Your task to perform on an android device: Play the last video I watched on Youtube Image 0: 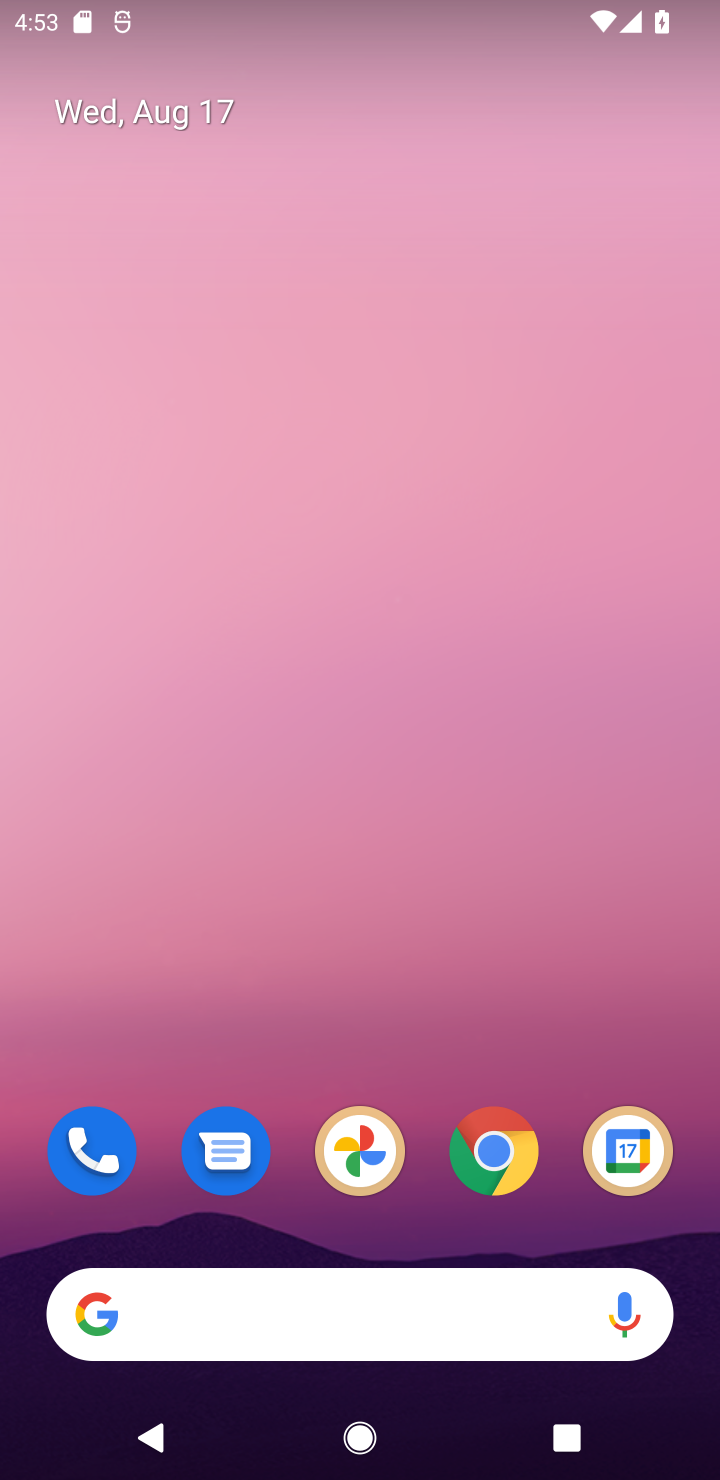
Step 0: drag from (415, 1237) to (369, 197)
Your task to perform on an android device: Play the last video I watched on Youtube Image 1: 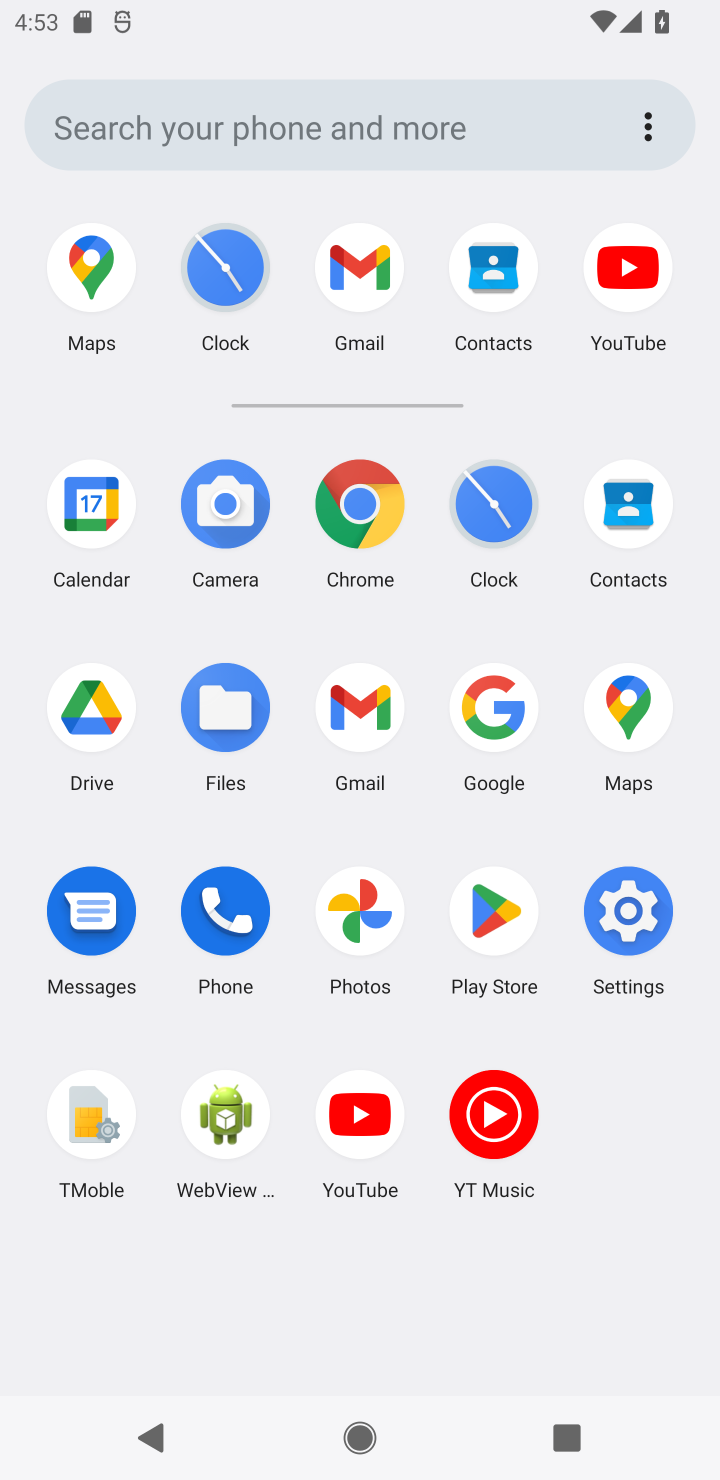
Step 1: click (656, 353)
Your task to perform on an android device: Play the last video I watched on Youtube Image 2: 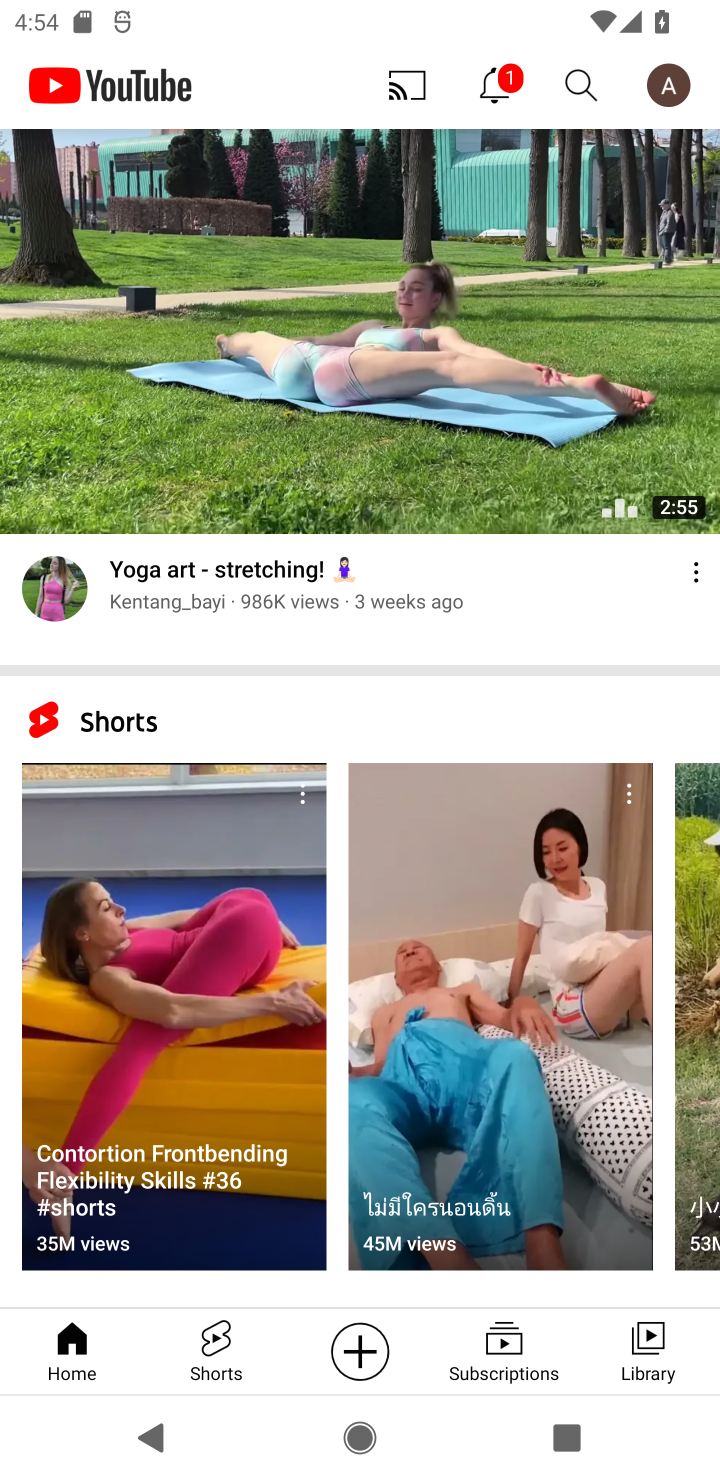
Step 2: click (630, 1360)
Your task to perform on an android device: Play the last video I watched on Youtube Image 3: 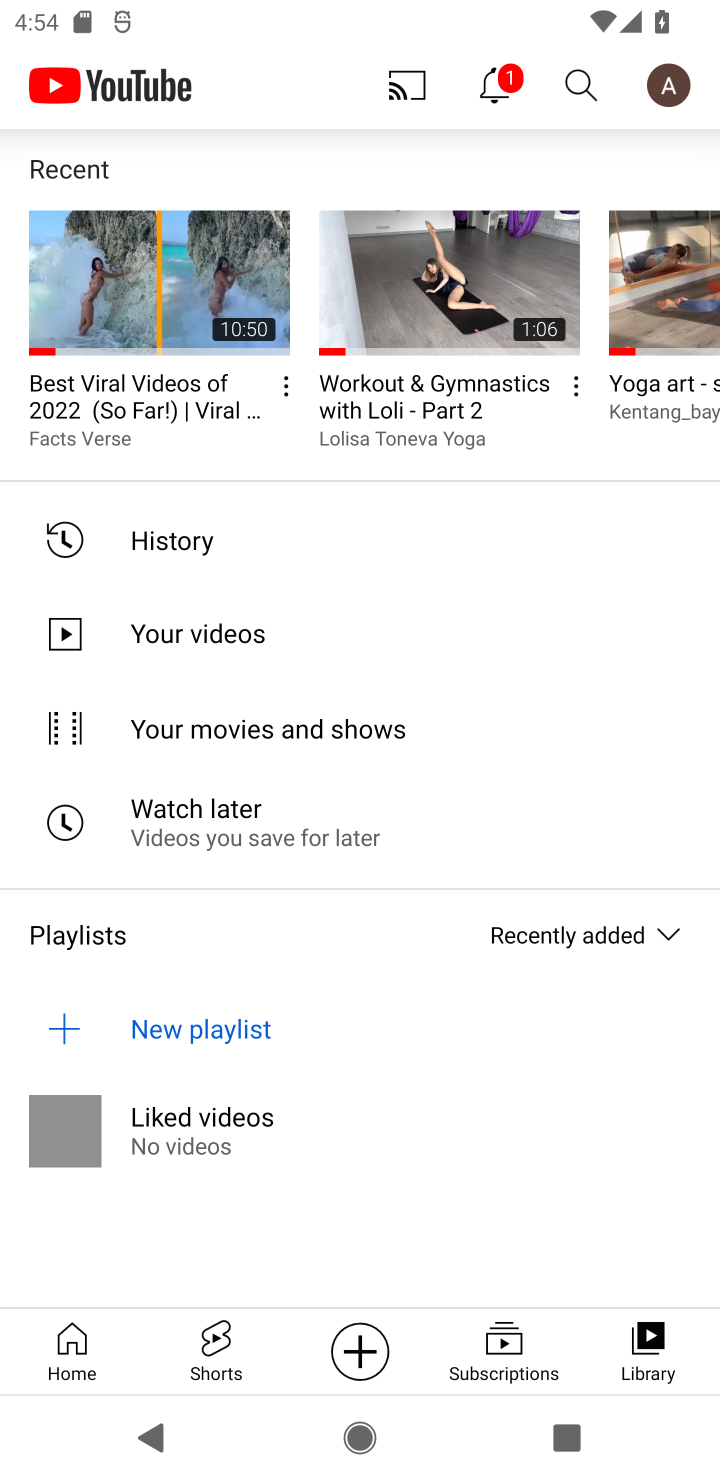
Step 3: click (170, 306)
Your task to perform on an android device: Play the last video I watched on Youtube Image 4: 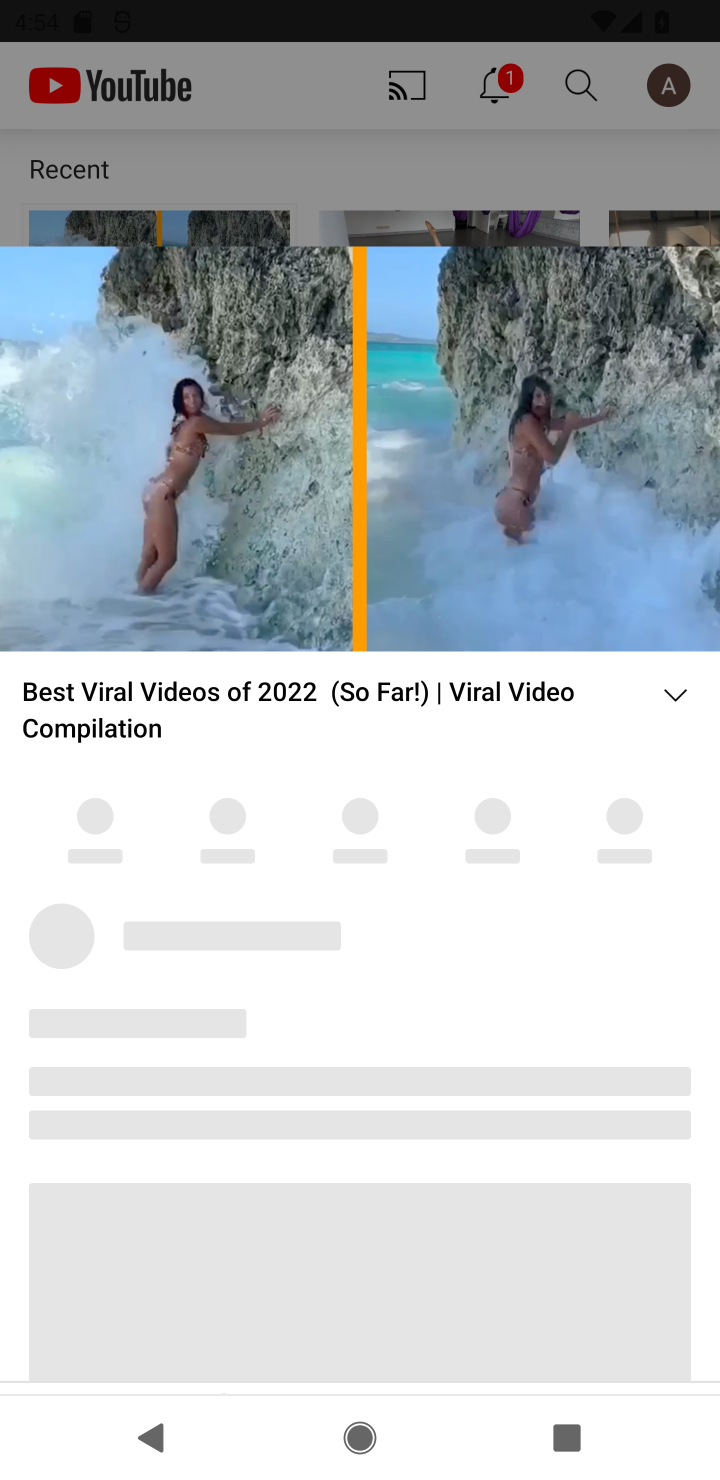
Step 4: task complete